Your task to perform on an android device: Empty the shopping cart on bestbuy.com. Search for "corsair k70" on bestbuy.com, select the first entry, add it to the cart, then select checkout. Image 0: 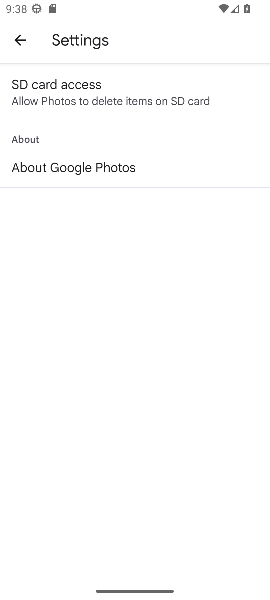
Step 0: press home button
Your task to perform on an android device: Empty the shopping cart on bestbuy.com. Search for "corsair k70" on bestbuy.com, select the first entry, add it to the cart, then select checkout. Image 1: 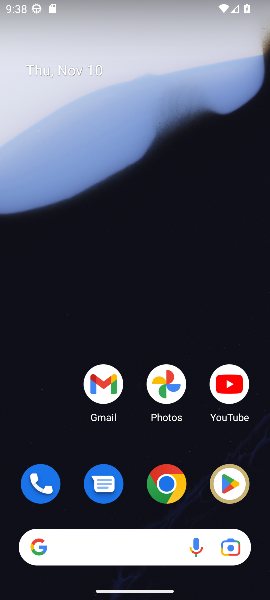
Step 1: click (167, 483)
Your task to perform on an android device: Empty the shopping cart on bestbuy.com. Search for "corsair k70" on bestbuy.com, select the first entry, add it to the cart, then select checkout. Image 2: 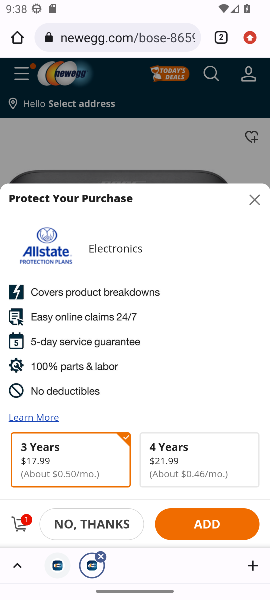
Step 2: click (86, 34)
Your task to perform on an android device: Empty the shopping cart on bestbuy.com. Search for "corsair k70" on bestbuy.com, select the first entry, add it to the cart, then select checkout. Image 3: 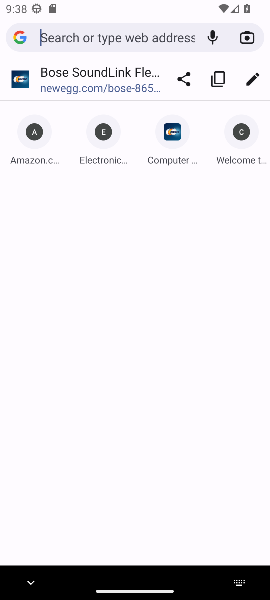
Step 3: type "bestbuy.com"
Your task to perform on an android device: Empty the shopping cart on bestbuy.com. Search for "corsair k70" on bestbuy.com, select the first entry, add it to the cart, then select checkout. Image 4: 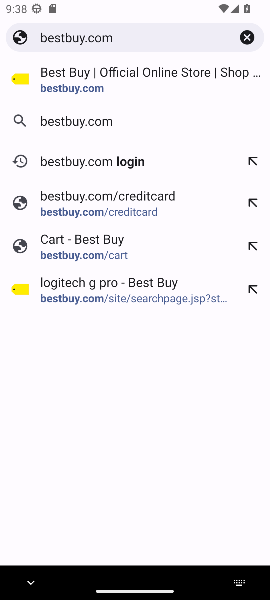
Step 4: click (63, 87)
Your task to perform on an android device: Empty the shopping cart on bestbuy.com. Search for "corsair k70" on bestbuy.com, select the first entry, add it to the cart, then select checkout. Image 5: 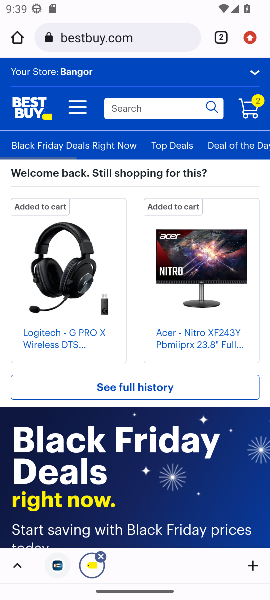
Step 5: click (255, 111)
Your task to perform on an android device: Empty the shopping cart on bestbuy.com. Search for "corsair k70" on bestbuy.com, select the first entry, add it to the cart, then select checkout. Image 6: 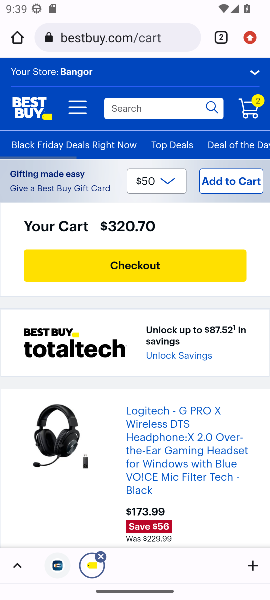
Step 6: drag from (114, 362) to (103, 196)
Your task to perform on an android device: Empty the shopping cart on bestbuy.com. Search for "corsair k70" on bestbuy.com, select the first entry, add it to the cart, then select checkout. Image 7: 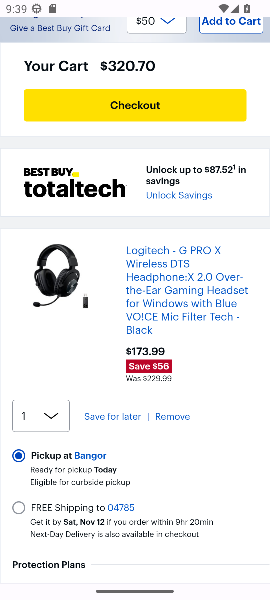
Step 7: click (168, 412)
Your task to perform on an android device: Empty the shopping cart on bestbuy.com. Search for "corsair k70" on bestbuy.com, select the first entry, add it to the cart, then select checkout. Image 8: 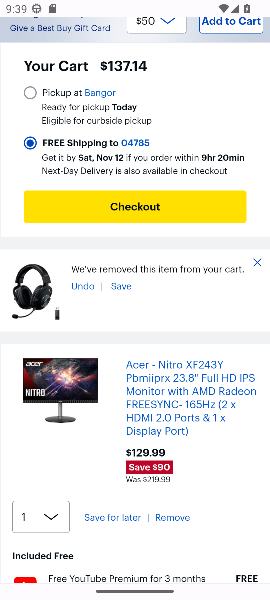
Step 8: click (172, 520)
Your task to perform on an android device: Empty the shopping cart on bestbuy.com. Search for "corsair k70" on bestbuy.com, select the first entry, add it to the cart, then select checkout. Image 9: 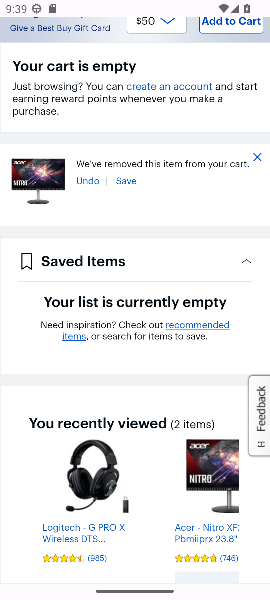
Step 9: drag from (114, 128) to (118, 314)
Your task to perform on an android device: Empty the shopping cart on bestbuy.com. Search for "corsair k70" on bestbuy.com, select the first entry, add it to the cart, then select checkout. Image 10: 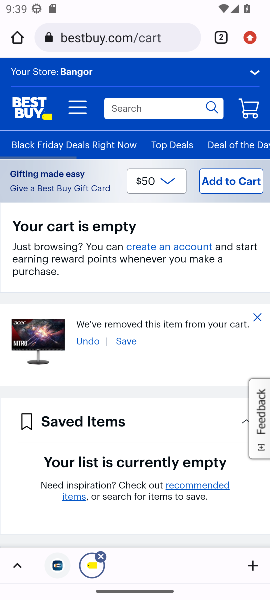
Step 10: click (128, 111)
Your task to perform on an android device: Empty the shopping cart on bestbuy.com. Search for "corsair k70" on bestbuy.com, select the first entry, add it to the cart, then select checkout. Image 11: 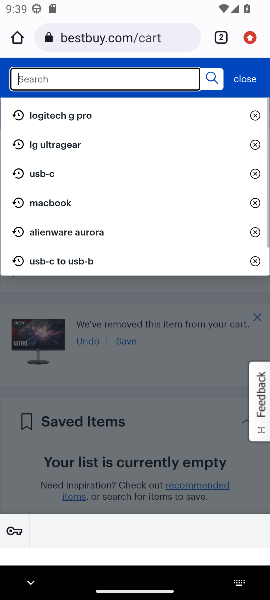
Step 11: type "corsair k70"
Your task to perform on an android device: Empty the shopping cart on bestbuy.com. Search for "corsair k70" on bestbuy.com, select the first entry, add it to the cart, then select checkout. Image 12: 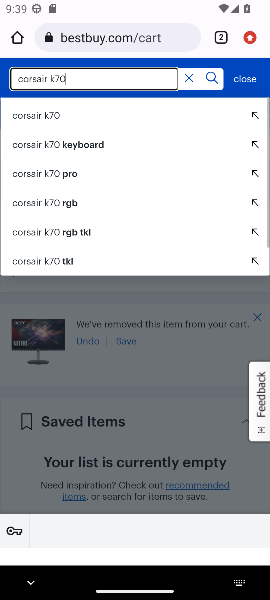
Step 12: click (29, 110)
Your task to perform on an android device: Empty the shopping cart on bestbuy.com. Search for "corsair k70" on bestbuy.com, select the first entry, add it to the cart, then select checkout. Image 13: 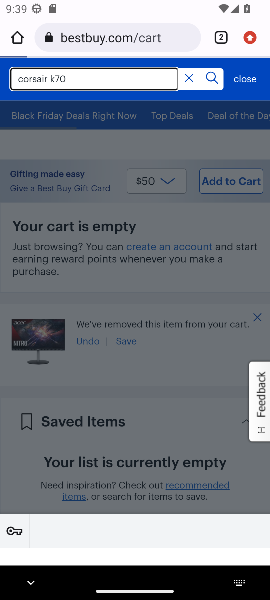
Step 13: click (212, 78)
Your task to perform on an android device: Empty the shopping cart on bestbuy.com. Search for "corsair k70" on bestbuy.com, select the first entry, add it to the cart, then select checkout. Image 14: 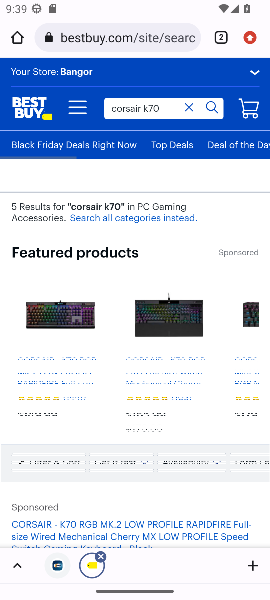
Step 14: drag from (129, 448) to (117, 277)
Your task to perform on an android device: Empty the shopping cart on bestbuy.com. Search for "corsair k70" on bestbuy.com, select the first entry, add it to the cart, then select checkout. Image 15: 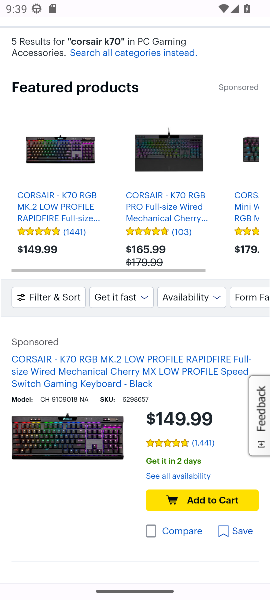
Step 15: click (206, 500)
Your task to perform on an android device: Empty the shopping cart on bestbuy.com. Search for "corsair k70" on bestbuy.com, select the first entry, add it to the cart, then select checkout. Image 16: 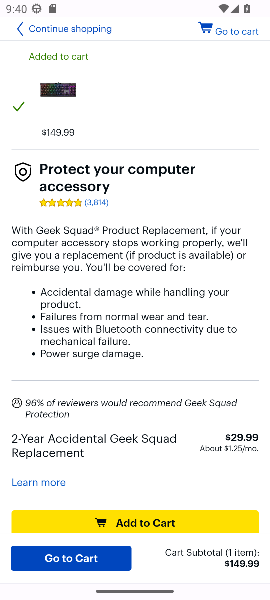
Step 16: click (234, 33)
Your task to perform on an android device: Empty the shopping cart on bestbuy.com. Search for "corsair k70" on bestbuy.com, select the first entry, add it to the cart, then select checkout. Image 17: 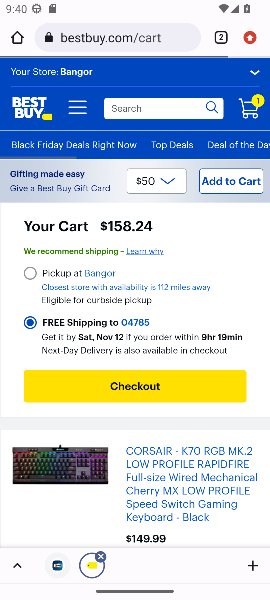
Step 17: click (140, 380)
Your task to perform on an android device: Empty the shopping cart on bestbuy.com. Search for "corsair k70" on bestbuy.com, select the first entry, add it to the cart, then select checkout. Image 18: 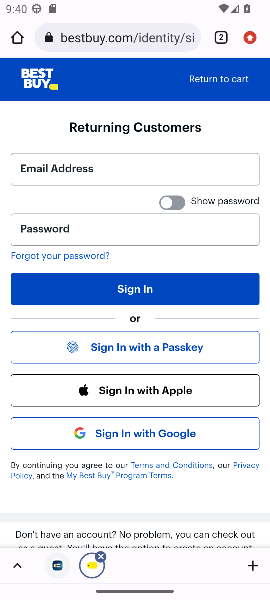
Step 18: task complete